Your task to perform on an android device: see sites visited before in the chrome app Image 0: 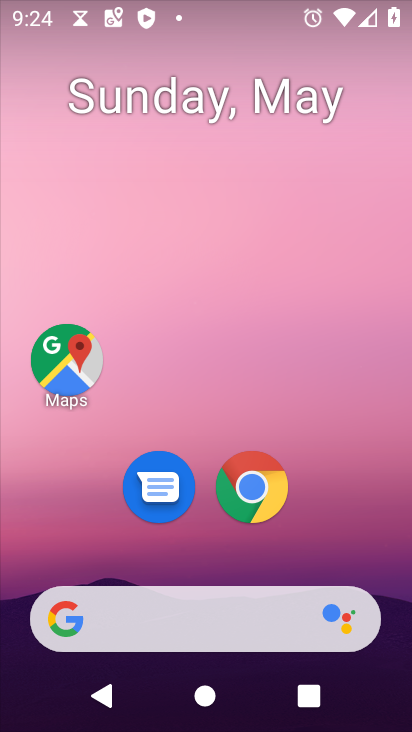
Step 0: drag from (383, 536) to (321, 81)
Your task to perform on an android device: see sites visited before in the chrome app Image 1: 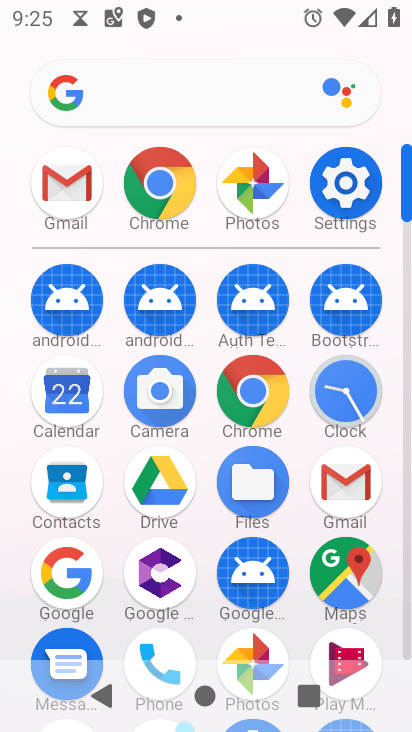
Step 1: click (165, 177)
Your task to perform on an android device: see sites visited before in the chrome app Image 2: 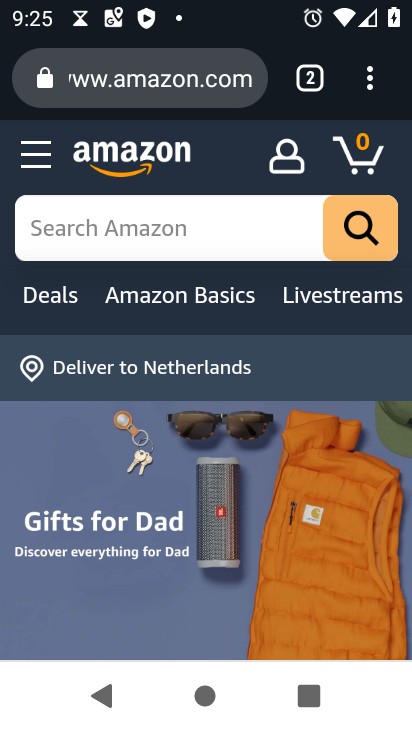
Step 2: task complete